Your task to perform on an android device: turn off smart reply in the gmail app Image 0: 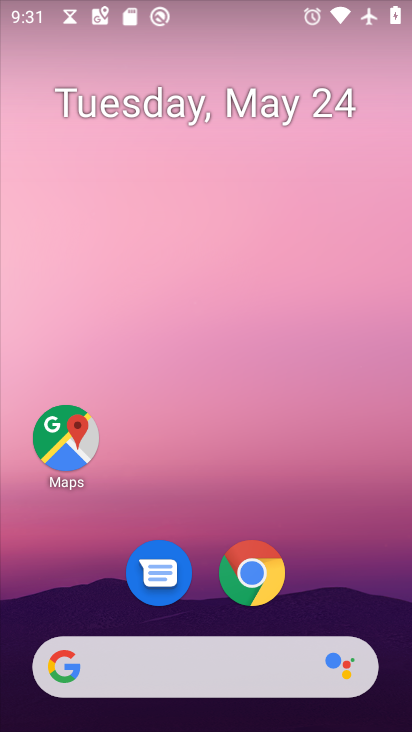
Step 0: drag from (372, 553) to (285, 43)
Your task to perform on an android device: turn off smart reply in the gmail app Image 1: 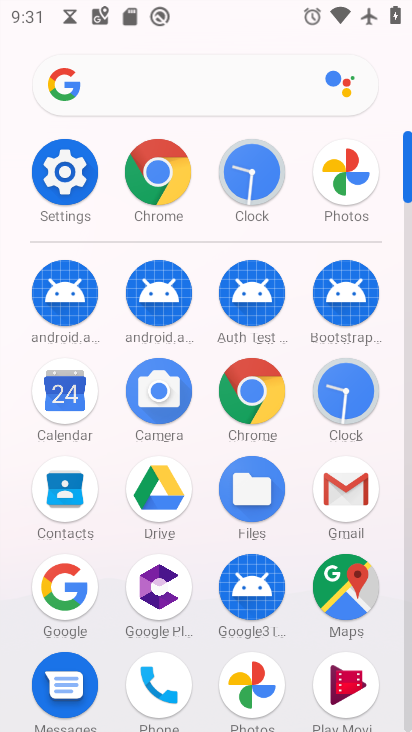
Step 1: click (350, 495)
Your task to perform on an android device: turn off smart reply in the gmail app Image 2: 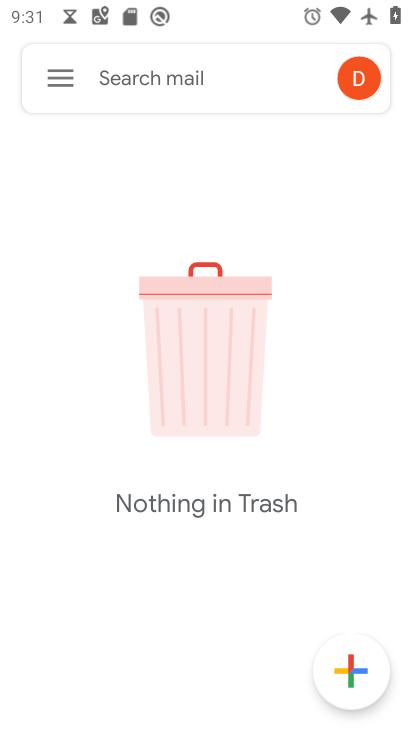
Step 2: click (72, 89)
Your task to perform on an android device: turn off smart reply in the gmail app Image 3: 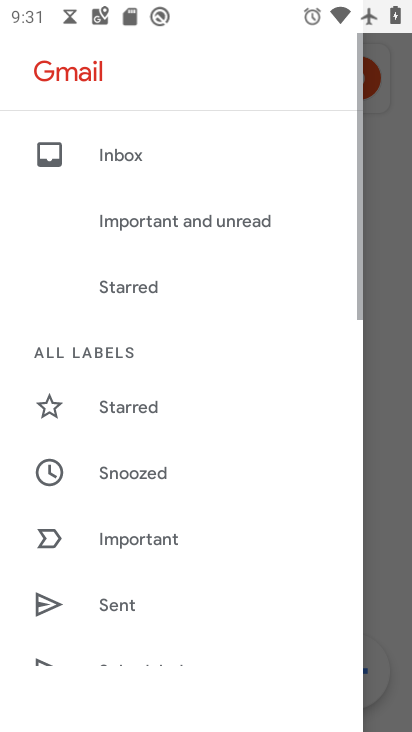
Step 3: drag from (108, 705) to (104, 156)
Your task to perform on an android device: turn off smart reply in the gmail app Image 4: 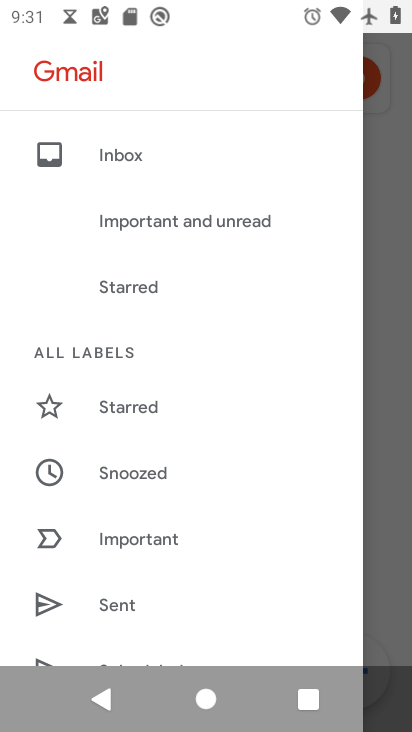
Step 4: drag from (181, 546) to (189, 116)
Your task to perform on an android device: turn off smart reply in the gmail app Image 5: 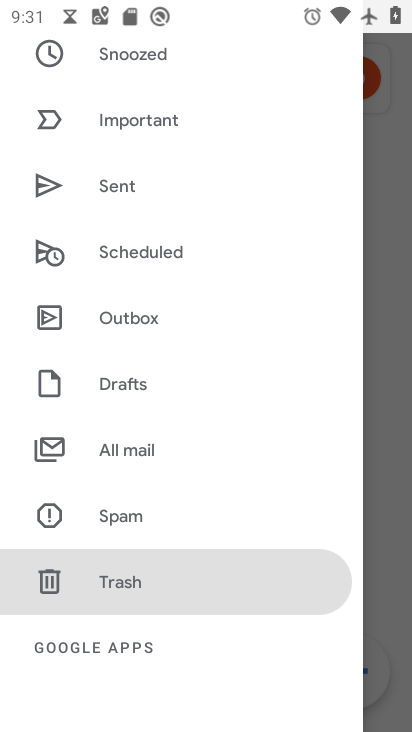
Step 5: drag from (184, 649) to (205, 185)
Your task to perform on an android device: turn off smart reply in the gmail app Image 6: 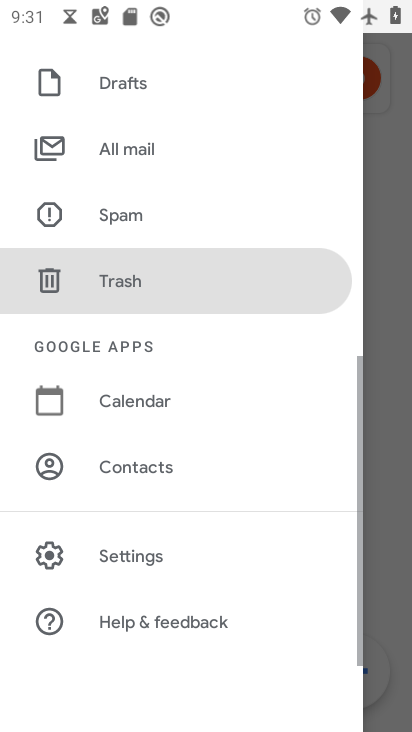
Step 6: click (141, 551)
Your task to perform on an android device: turn off smart reply in the gmail app Image 7: 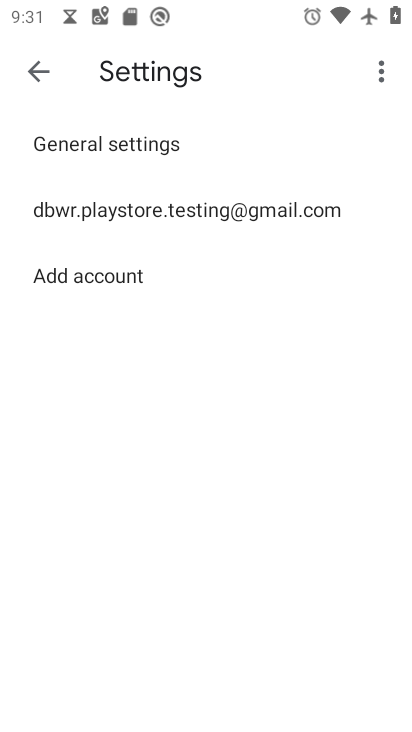
Step 7: click (182, 197)
Your task to perform on an android device: turn off smart reply in the gmail app Image 8: 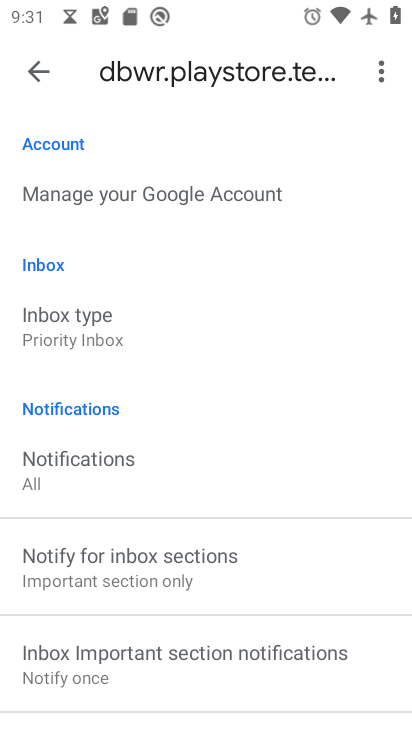
Step 8: drag from (182, 644) to (233, 218)
Your task to perform on an android device: turn off smart reply in the gmail app Image 9: 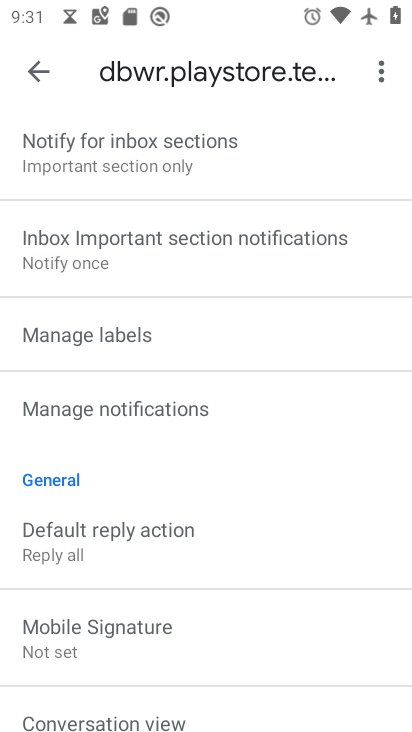
Step 9: drag from (152, 656) to (201, 186)
Your task to perform on an android device: turn off smart reply in the gmail app Image 10: 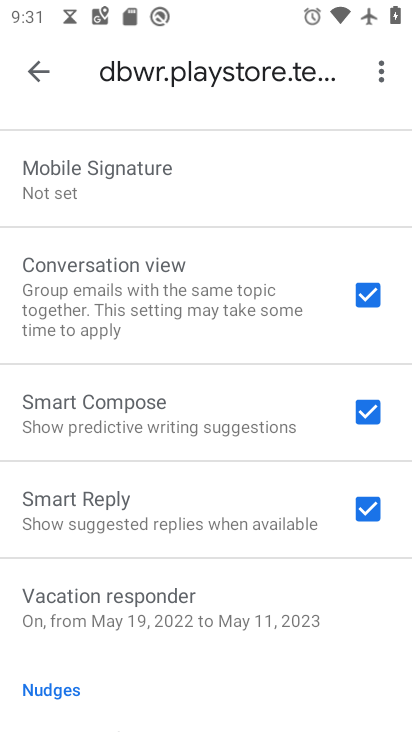
Step 10: drag from (203, 532) to (214, 121)
Your task to perform on an android device: turn off smart reply in the gmail app Image 11: 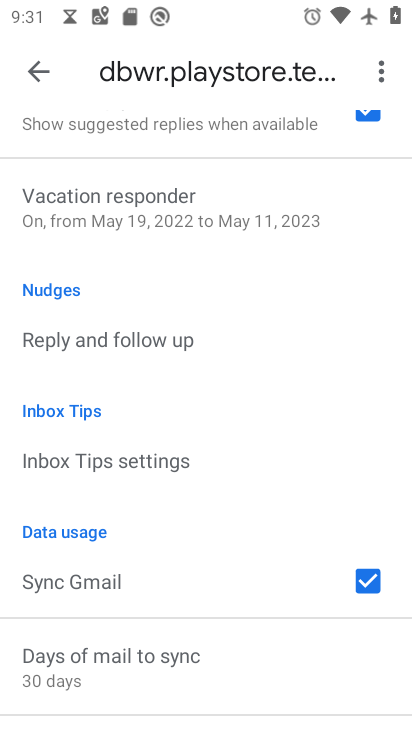
Step 11: drag from (243, 166) to (237, 530)
Your task to perform on an android device: turn off smart reply in the gmail app Image 12: 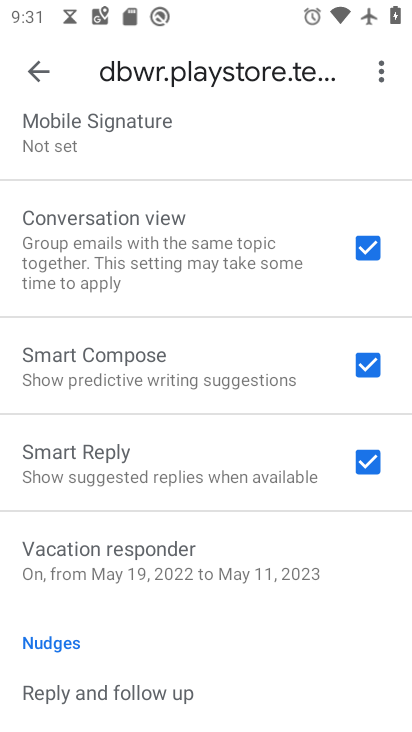
Step 12: click (379, 457)
Your task to perform on an android device: turn off smart reply in the gmail app Image 13: 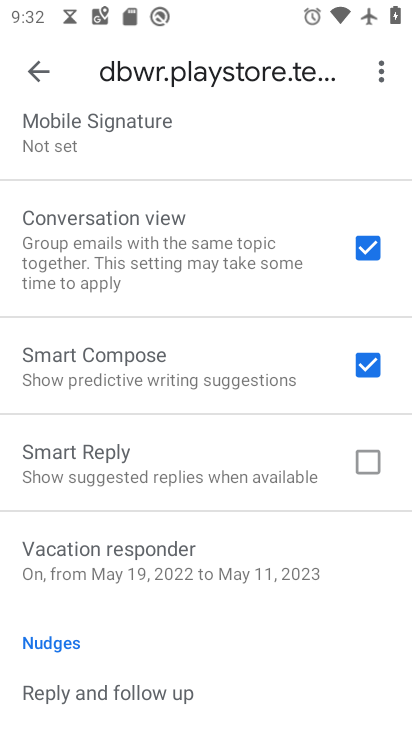
Step 13: task complete